Your task to perform on an android device: change the upload size in google photos Image 0: 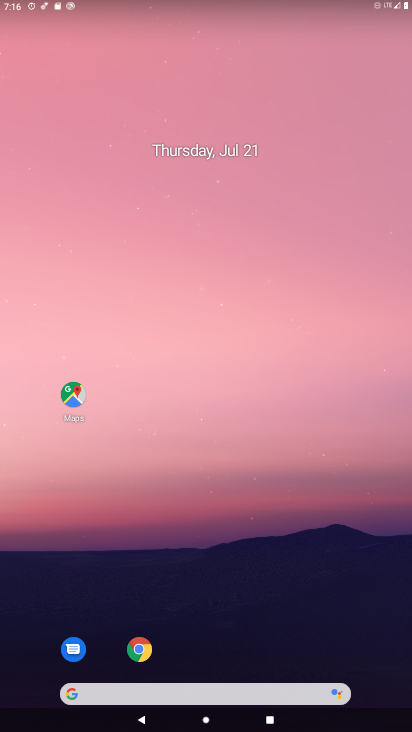
Step 0: drag from (296, 526) to (143, 20)
Your task to perform on an android device: change the upload size in google photos Image 1: 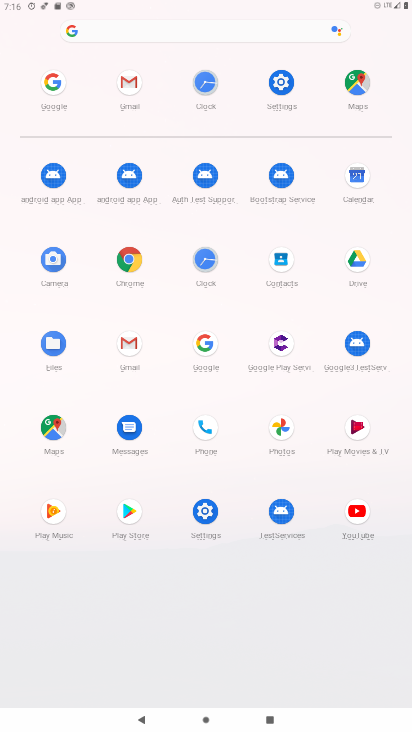
Step 1: click (279, 433)
Your task to perform on an android device: change the upload size in google photos Image 2: 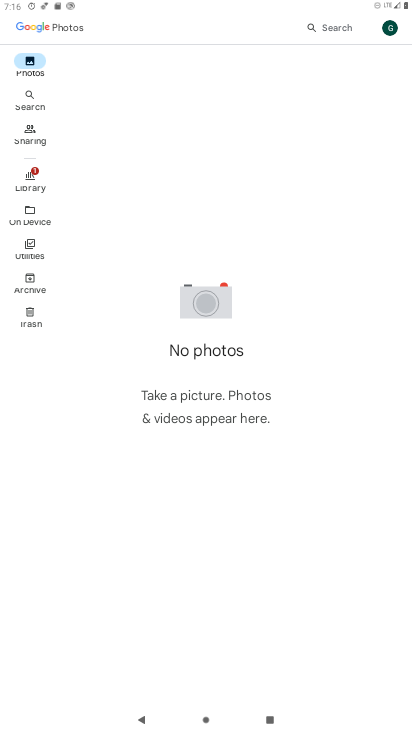
Step 2: click (395, 30)
Your task to perform on an android device: change the upload size in google photos Image 3: 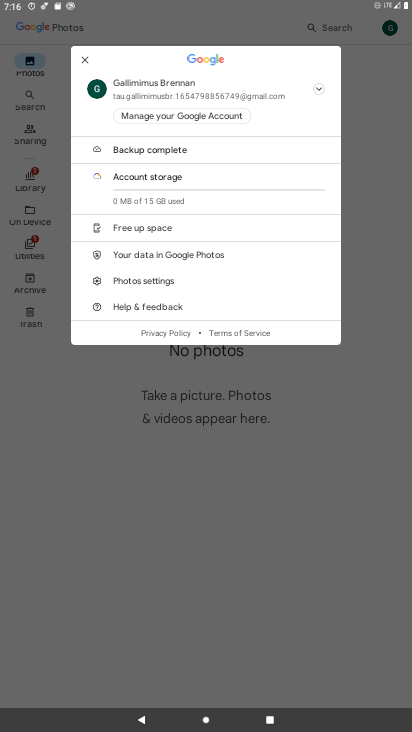
Step 3: click (127, 275)
Your task to perform on an android device: change the upload size in google photos Image 4: 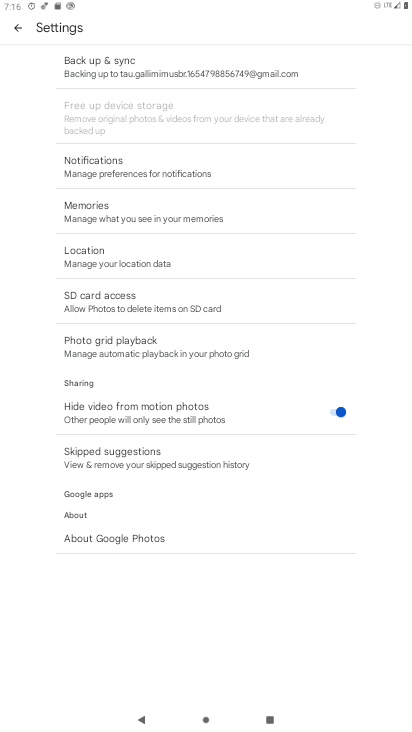
Step 4: click (143, 60)
Your task to perform on an android device: change the upload size in google photos Image 5: 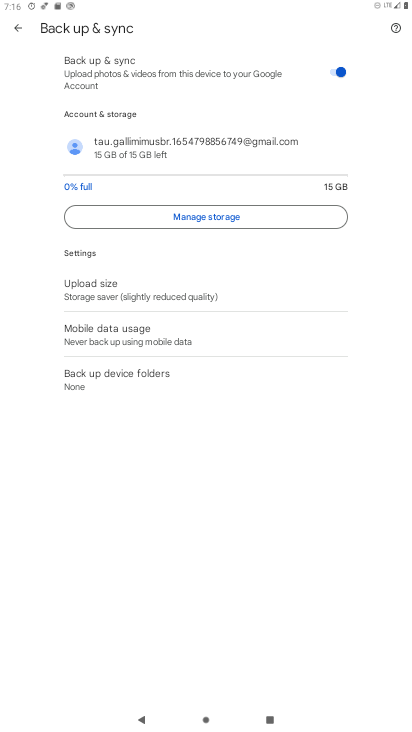
Step 5: click (112, 285)
Your task to perform on an android device: change the upload size in google photos Image 6: 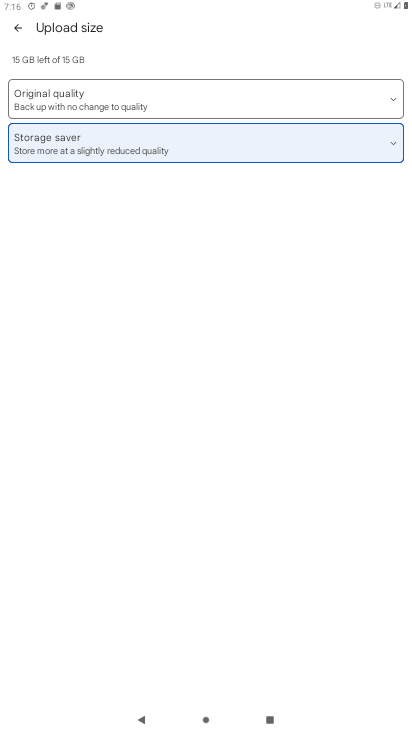
Step 6: click (85, 95)
Your task to perform on an android device: change the upload size in google photos Image 7: 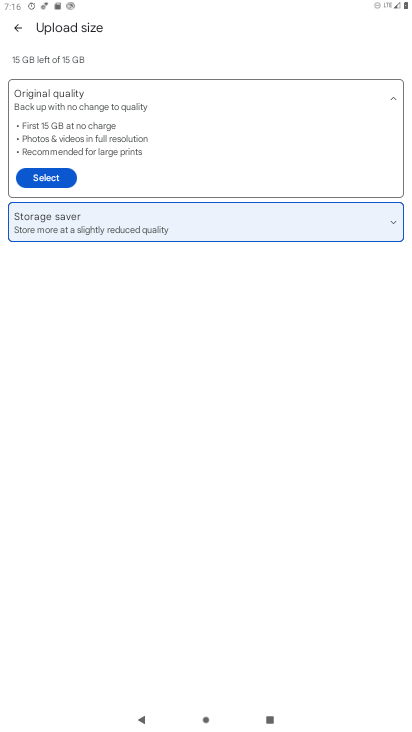
Step 7: click (50, 174)
Your task to perform on an android device: change the upload size in google photos Image 8: 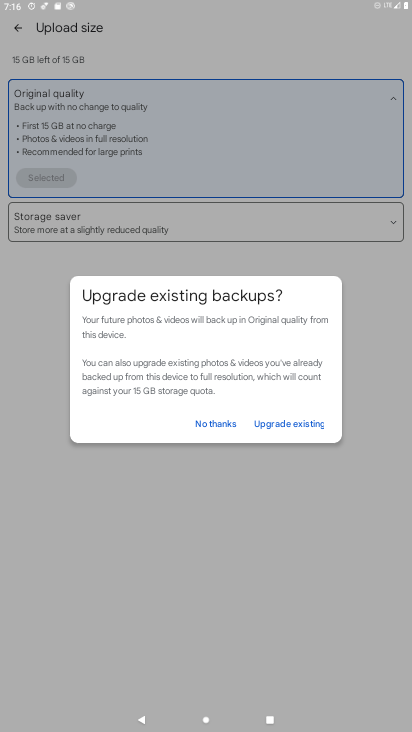
Step 8: click (296, 425)
Your task to perform on an android device: change the upload size in google photos Image 9: 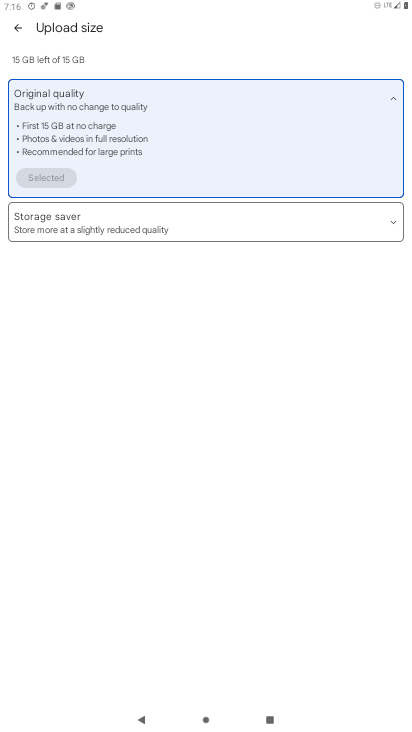
Step 9: task complete